Your task to perform on an android device: turn off data saver in the chrome app Image 0: 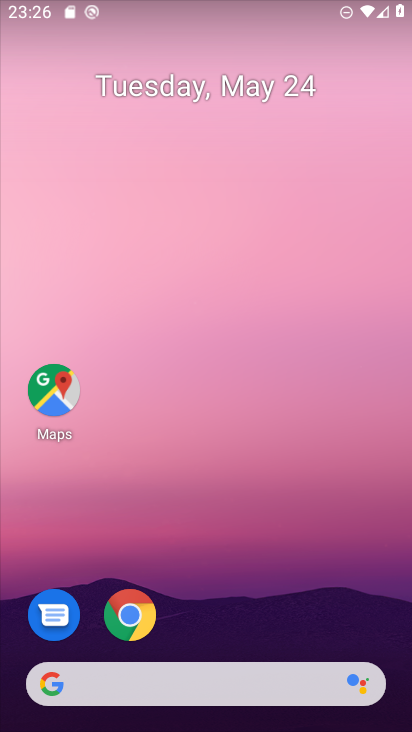
Step 0: press home button
Your task to perform on an android device: turn off data saver in the chrome app Image 1: 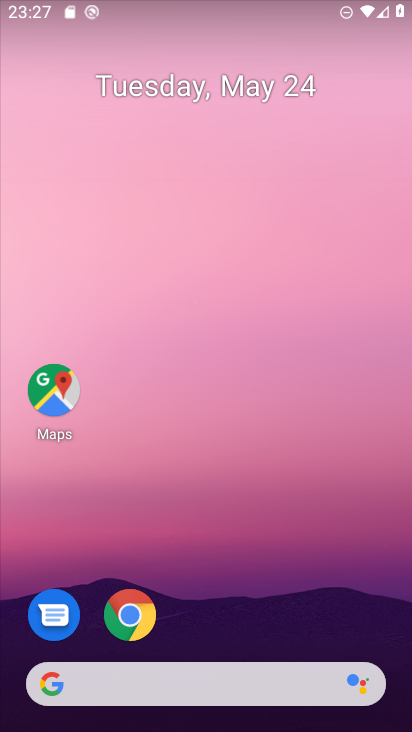
Step 1: drag from (261, 648) to (267, 167)
Your task to perform on an android device: turn off data saver in the chrome app Image 2: 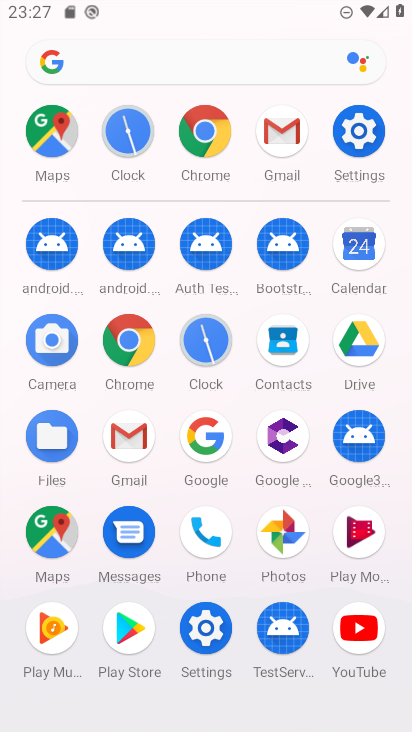
Step 2: click (204, 121)
Your task to perform on an android device: turn off data saver in the chrome app Image 3: 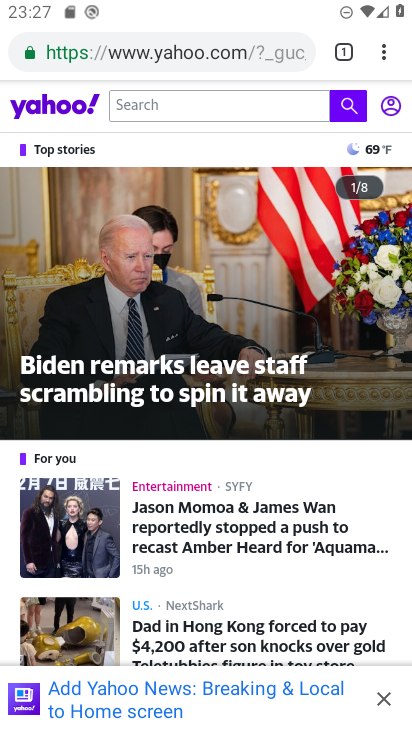
Step 3: click (387, 60)
Your task to perform on an android device: turn off data saver in the chrome app Image 4: 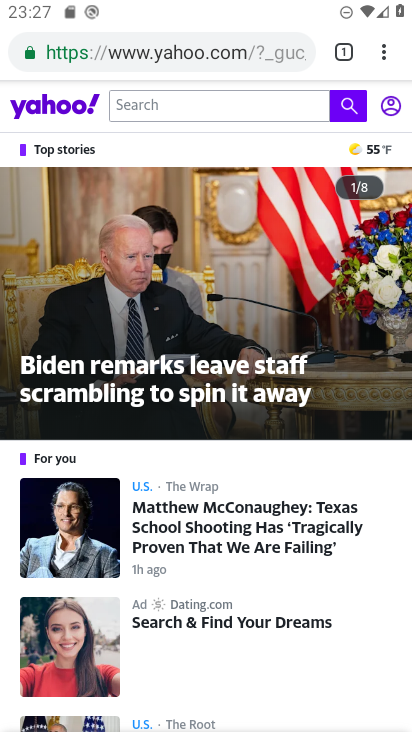
Step 4: click (392, 51)
Your task to perform on an android device: turn off data saver in the chrome app Image 5: 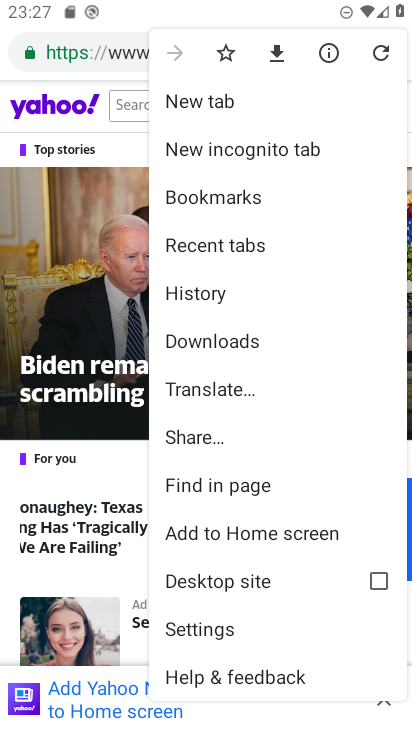
Step 5: click (222, 626)
Your task to perform on an android device: turn off data saver in the chrome app Image 6: 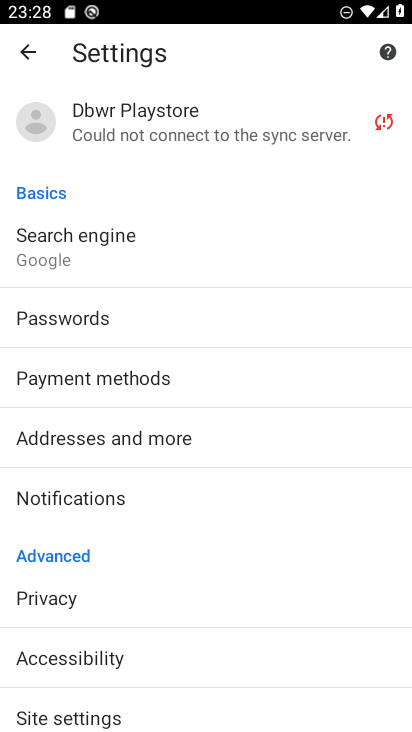
Step 6: drag from (90, 677) to (142, 336)
Your task to perform on an android device: turn off data saver in the chrome app Image 7: 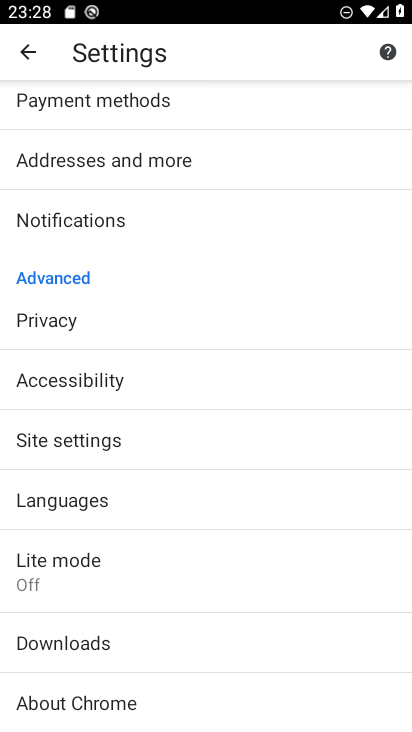
Step 7: click (51, 560)
Your task to perform on an android device: turn off data saver in the chrome app Image 8: 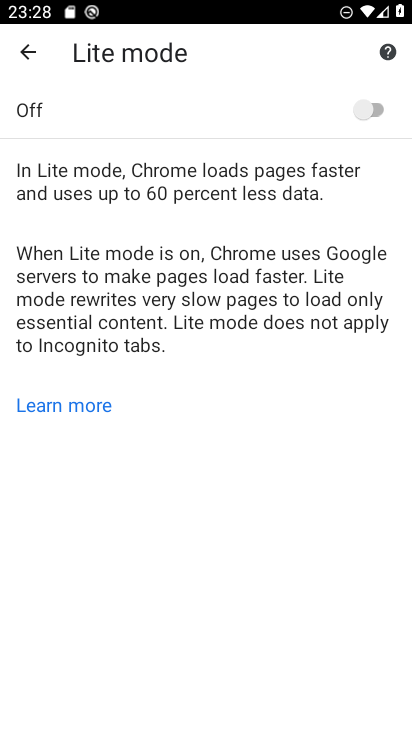
Step 8: click (377, 103)
Your task to perform on an android device: turn off data saver in the chrome app Image 9: 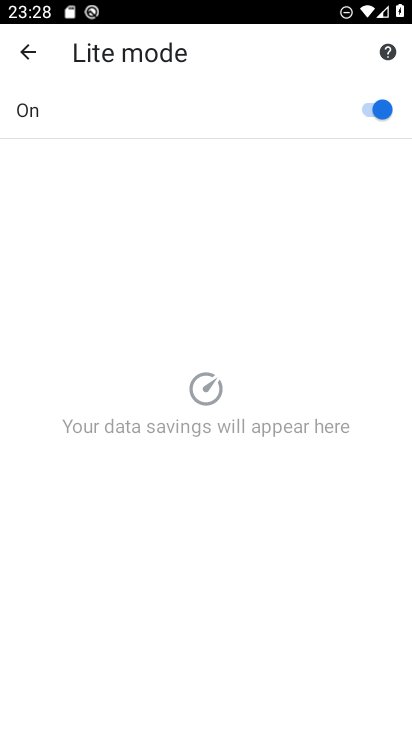
Step 9: click (383, 95)
Your task to perform on an android device: turn off data saver in the chrome app Image 10: 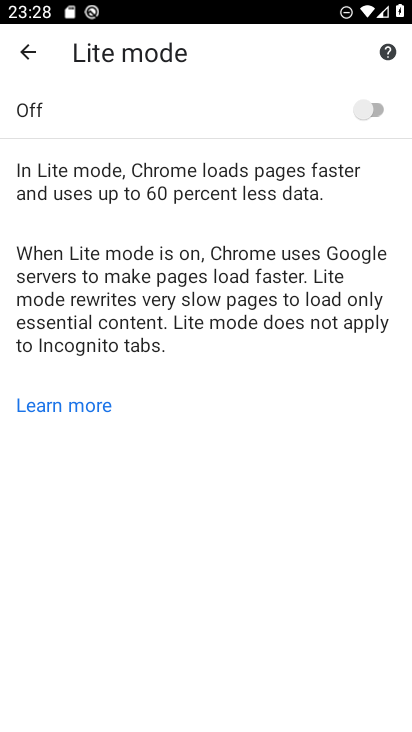
Step 10: task complete